Your task to perform on an android device: change notifications settings Image 0: 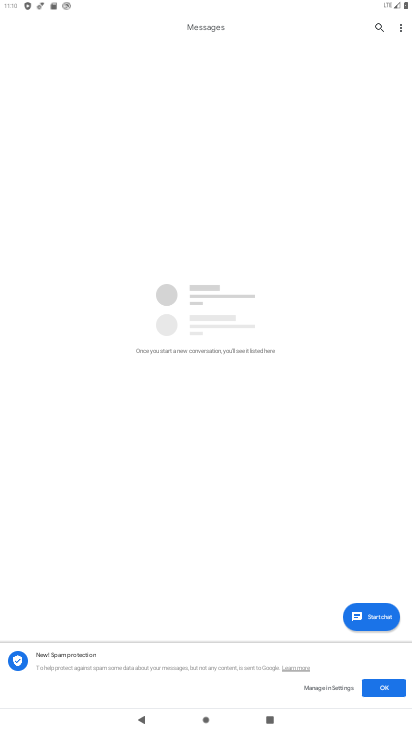
Step 0: press home button
Your task to perform on an android device: change notifications settings Image 1: 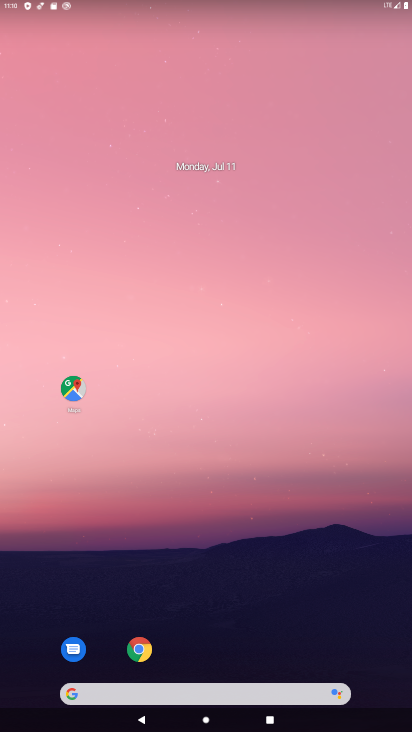
Step 1: drag from (328, 600) to (204, 105)
Your task to perform on an android device: change notifications settings Image 2: 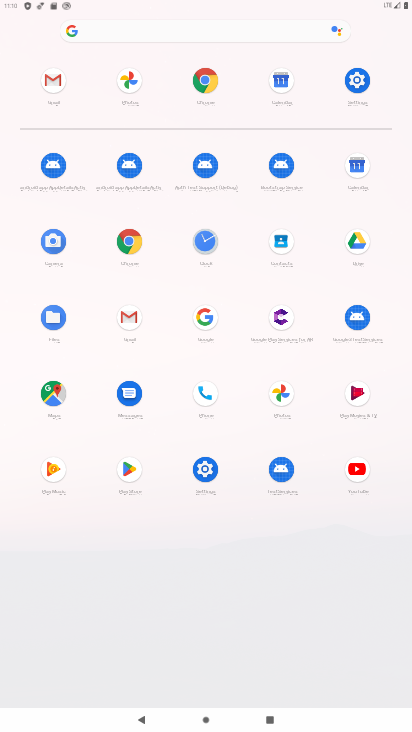
Step 2: click (357, 86)
Your task to perform on an android device: change notifications settings Image 3: 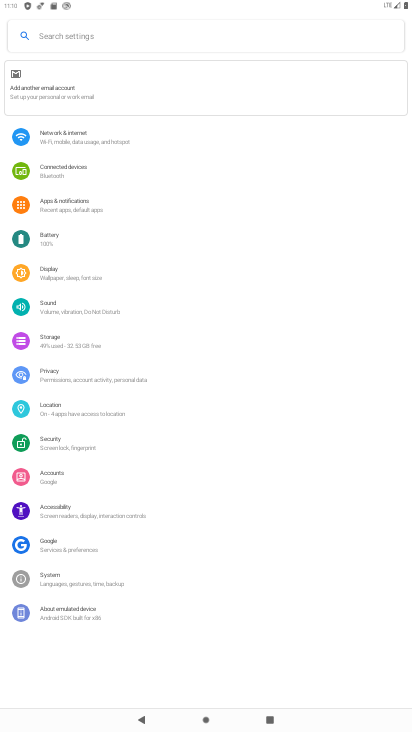
Step 3: click (87, 207)
Your task to perform on an android device: change notifications settings Image 4: 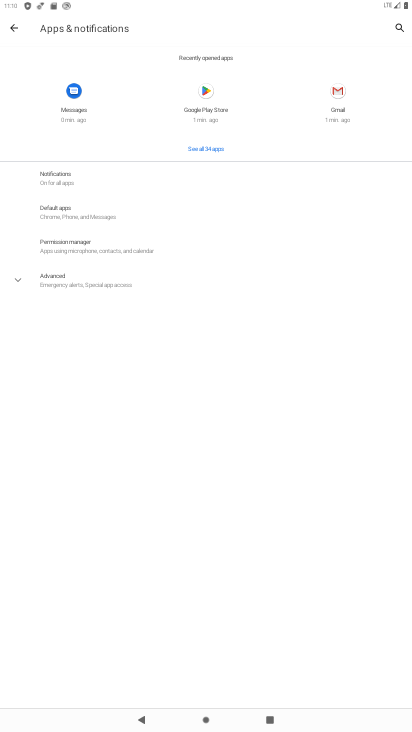
Step 4: click (70, 185)
Your task to perform on an android device: change notifications settings Image 5: 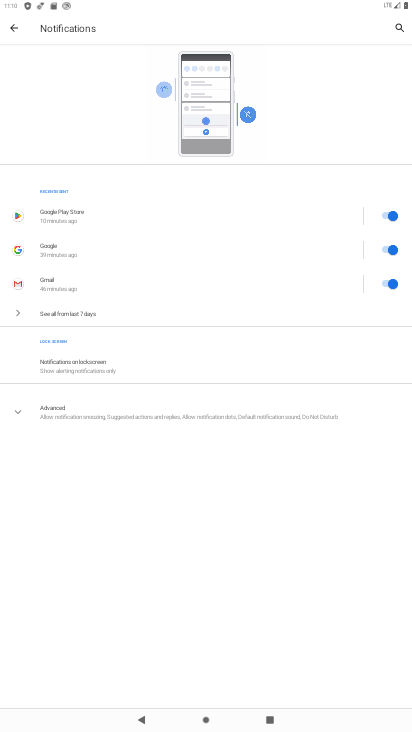
Step 5: click (137, 413)
Your task to perform on an android device: change notifications settings Image 6: 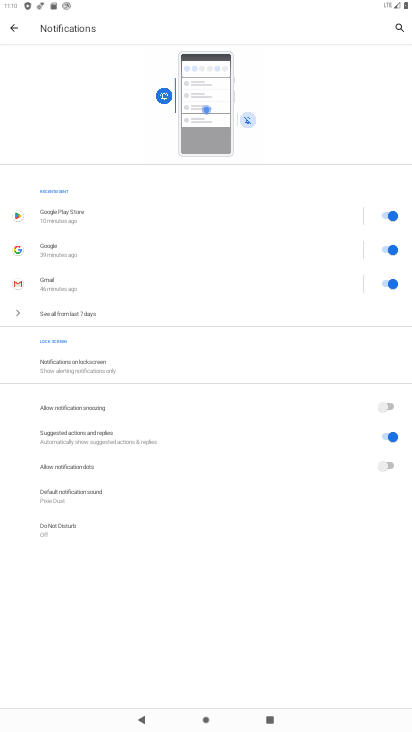
Step 6: click (391, 405)
Your task to perform on an android device: change notifications settings Image 7: 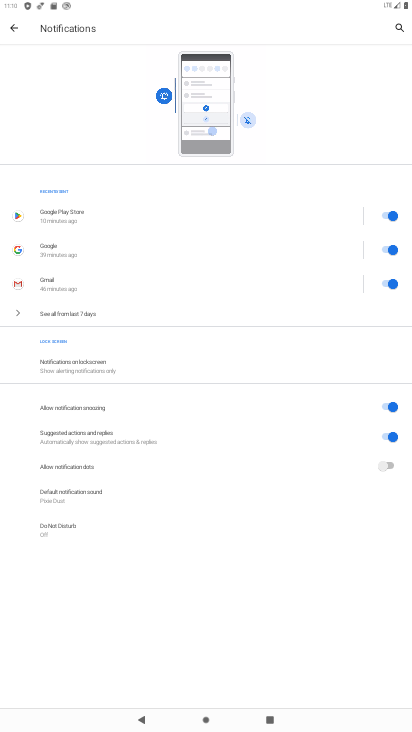
Step 7: task complete